Your task to perform on an android device: Search for seafood restaurants on Google Maps Image 0: 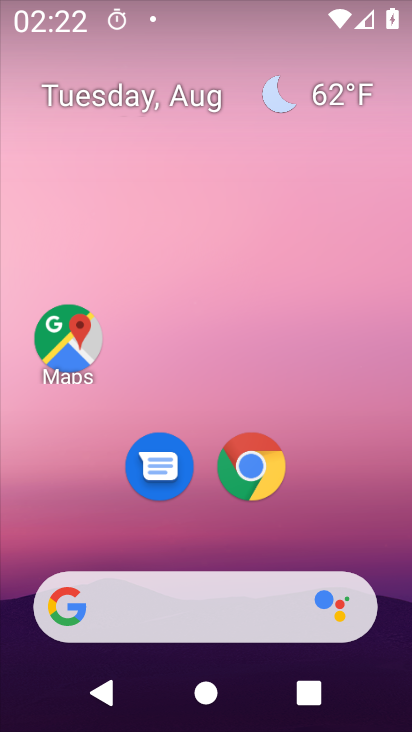
Step 0: drag from (377, 536) to (361, 113)
Your task to perform on an android device: Search for seafood restaurants on Google Maps Image 1: 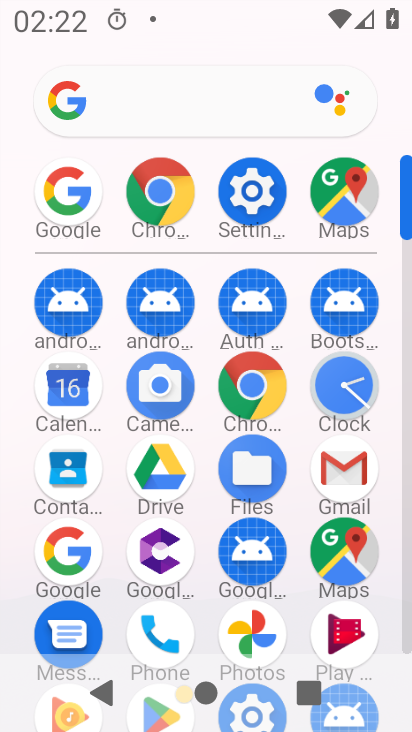
Step 1: click (354, 550)
Your task to perform on an android device: Search for seafood restaurants on Google Maps Image 2: 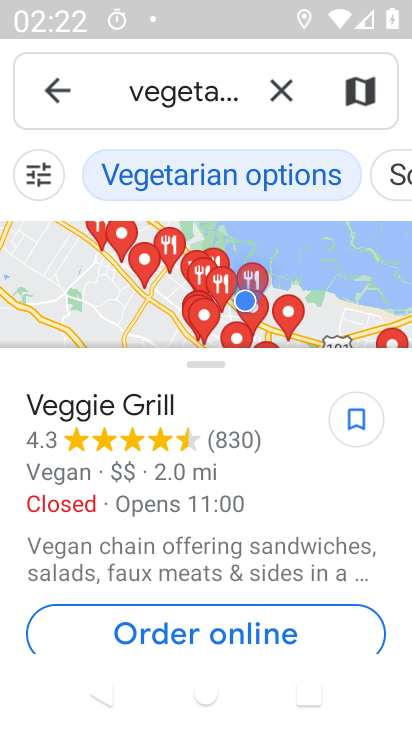
Step 2: press back button
Your task to perform on an android device: Search for seafood restaurants on Google Maps Image 3: 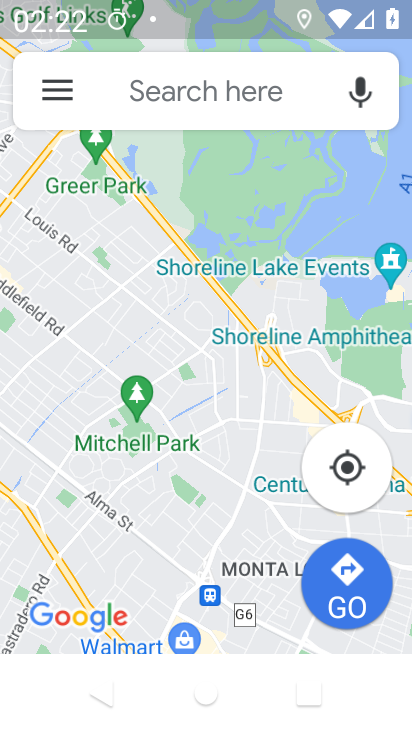
Step 3: click (313, 104)
Your task to perform on an android device: Search for seafood restaurants on Google Maps Image 4: 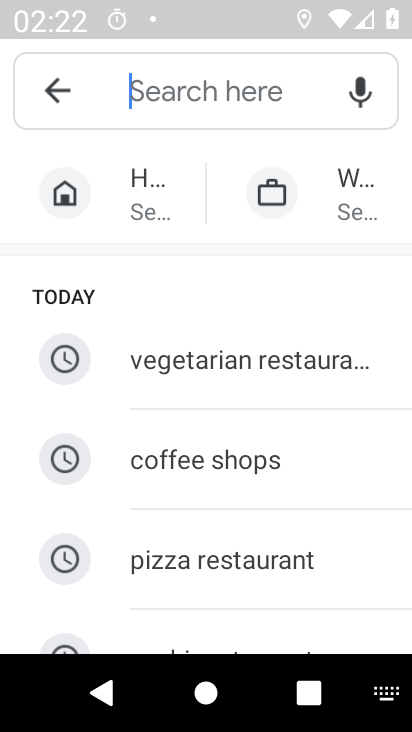
Step 4: type "seafood restaurants"
Your task to perform on an android device: Search for seafood restaurants on Google Maps Image 5: 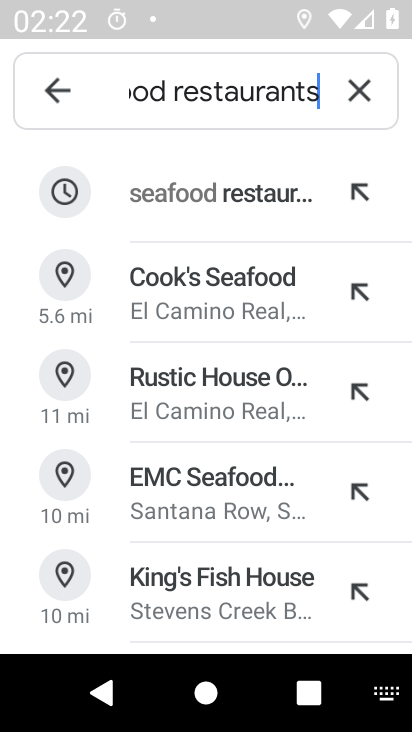
Step 5: click (265, 195)
Your task to perform on an android device: Search for seafood restaurants on Google Maps Image 6: 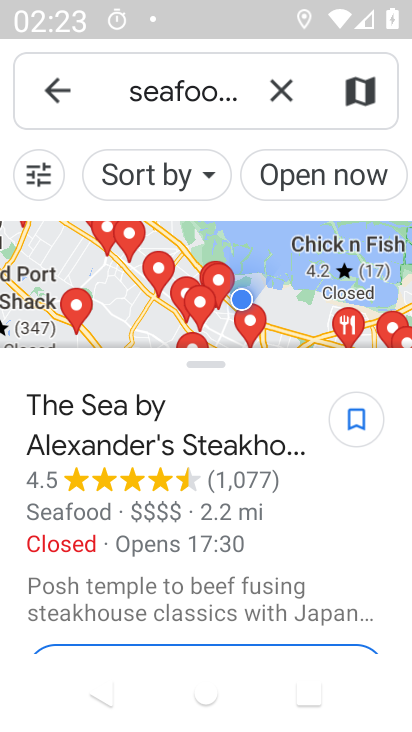
Step 6: task complete